Your task to perform on an android device: toggle javascript in the chrome app Image 0: 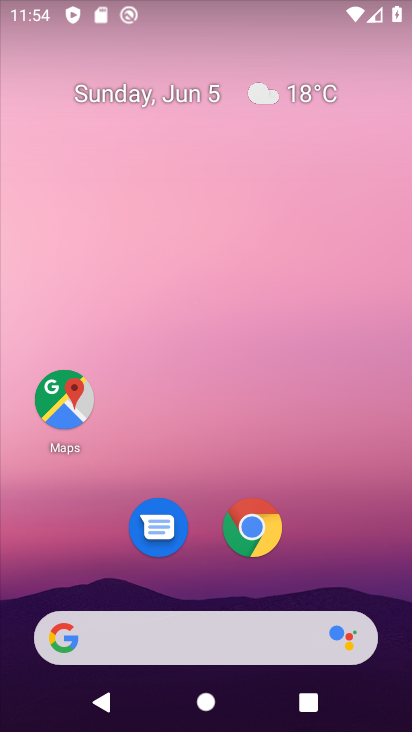
Step 0: click (260, 527)
Your task to perform on an android device: toggle javascript in the chrome app Image 1: 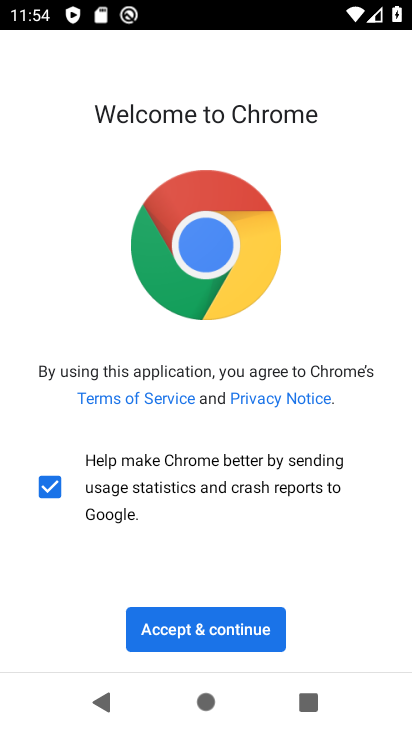
Step 1: click (215, 609)
Your task to perform on an android device: toggle javascript in the chrome app Image 2: 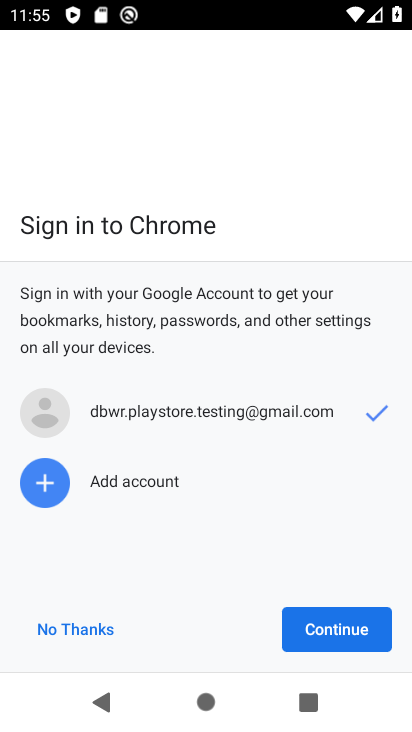
Step 2: click (315, 616)
Your task to perform on an android device: toggle javascript in the chrome app Image 3: 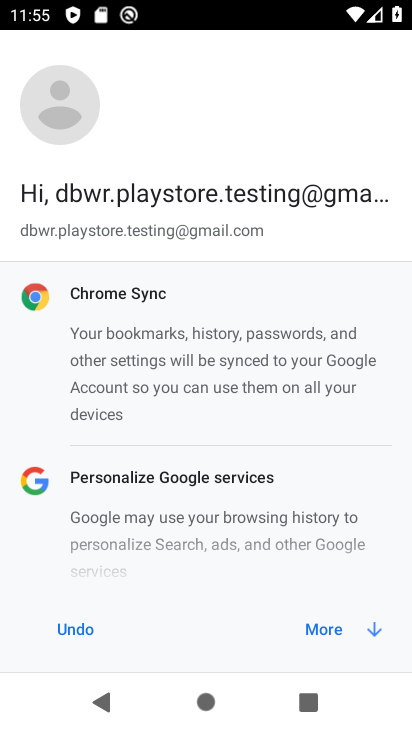
Step 3: click (326, 633)
Your task to perform on an android device: toggle javascript in the chrome app Image 4: 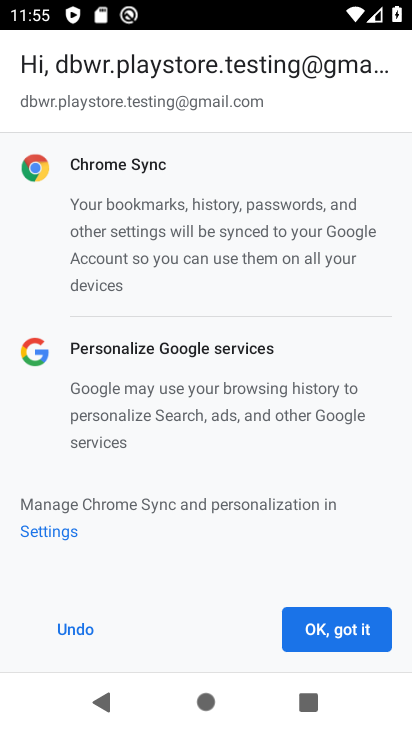
Step 4: click (324, 631)
Your task to perform on an android device: toggle javascript in the chrome app Image 5: 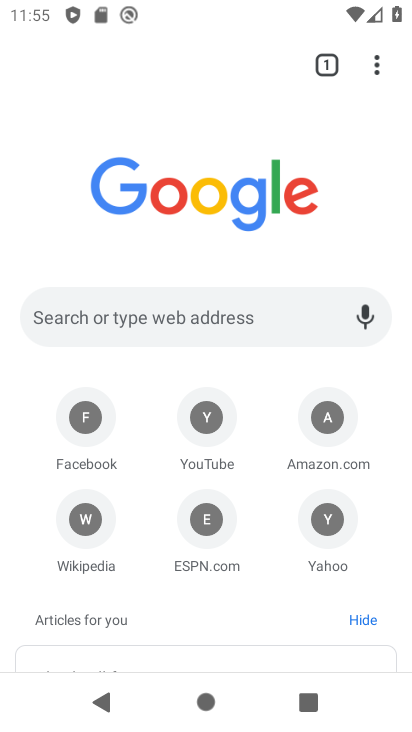
Step 5: drag from (376, 68) to (153, 532)
Your task to perform on an android device: toggle javascript in the chrome app Image 6: 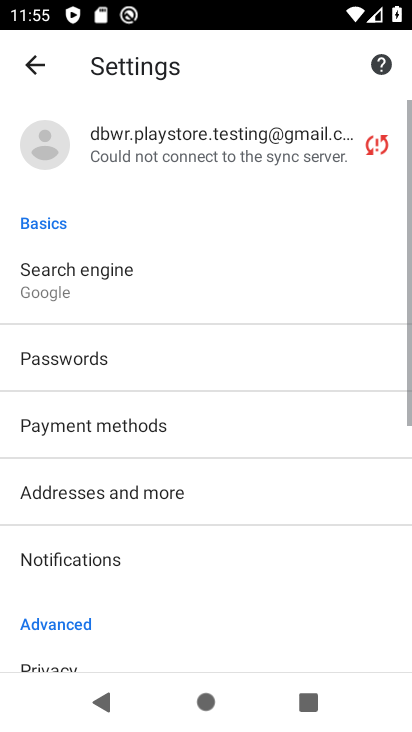
Step 6: drag from (150, 513) to (143, 141)
Your task to perform on an android device: toggle javascript in the chrome app Image 7: 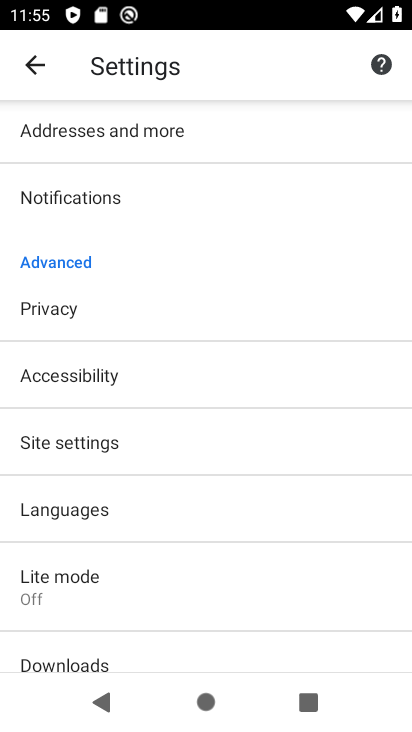
Step 7: click (96, 441)
Your task to perform on an android device: toggle javascript in the chrome app Image 8: 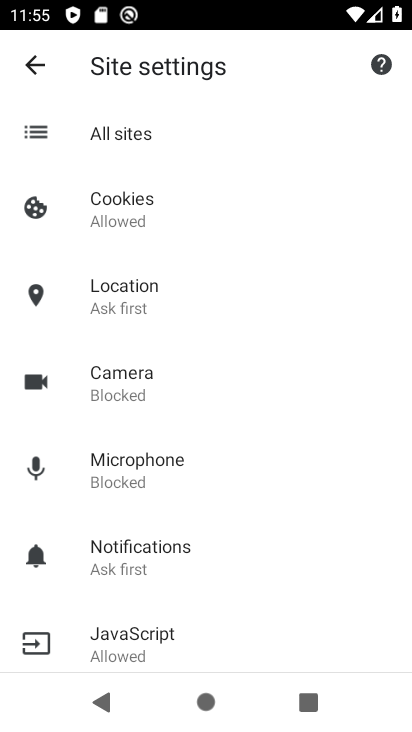
Step 8: click (147, 630)
Your task to perform on an android device: toggle javascript in the chrome app Image 9: 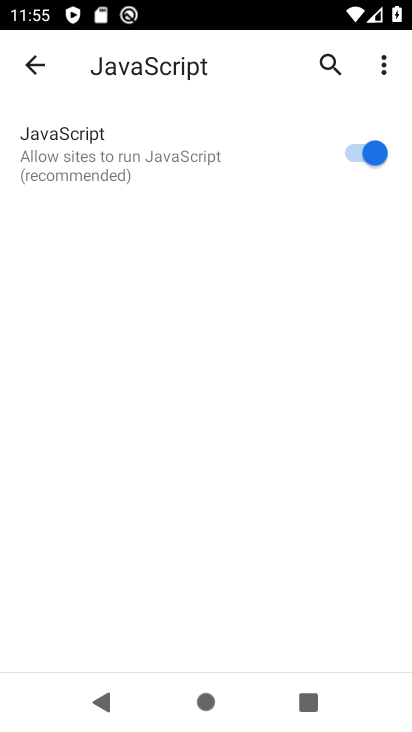
Step 9: click (366, 156)
Your task to perform on an android device: toggle javascript in the chrome app Image 10: 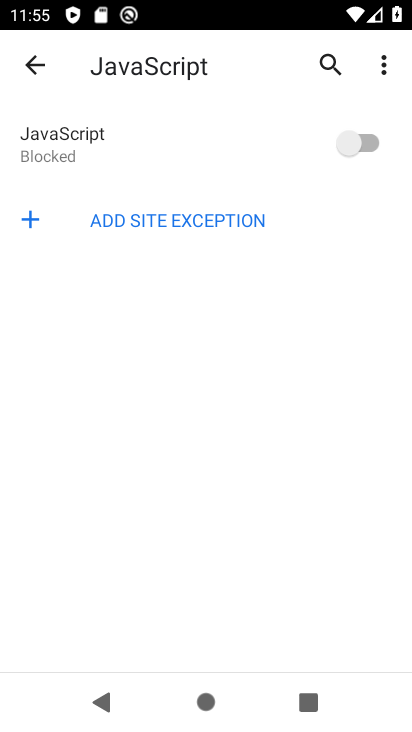
Step 10: task complete